Your task to perform on an android device: Go to wifi settings Image 0: 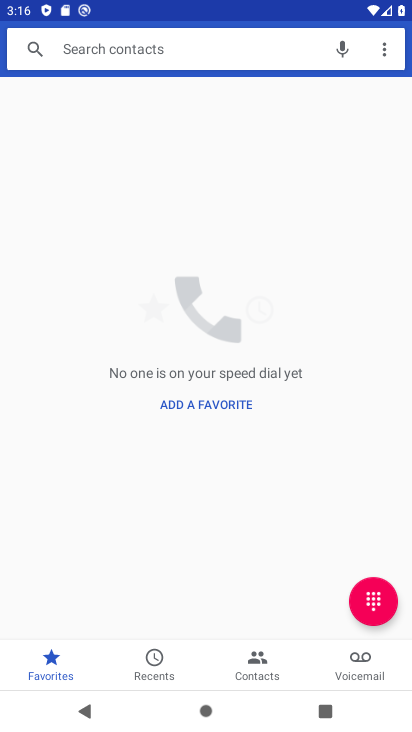
Step 0: press back button
Your task to perform on an android device: Go to wifi settings Image 1: 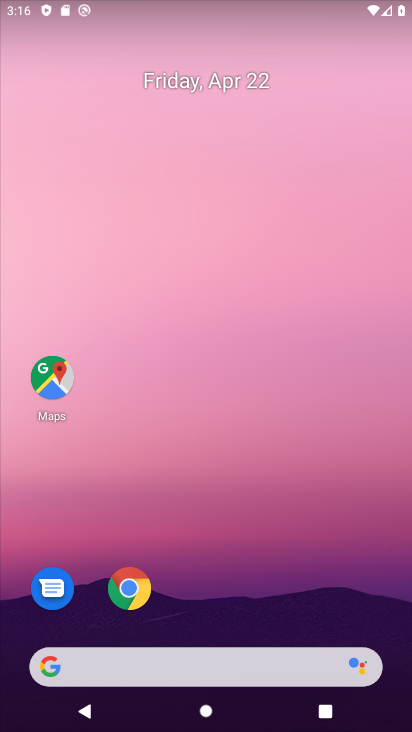
Step 1: drag from (178, 633) to (248, 77)
Your task to perform on an android device: Go to wifi settings Image 2: 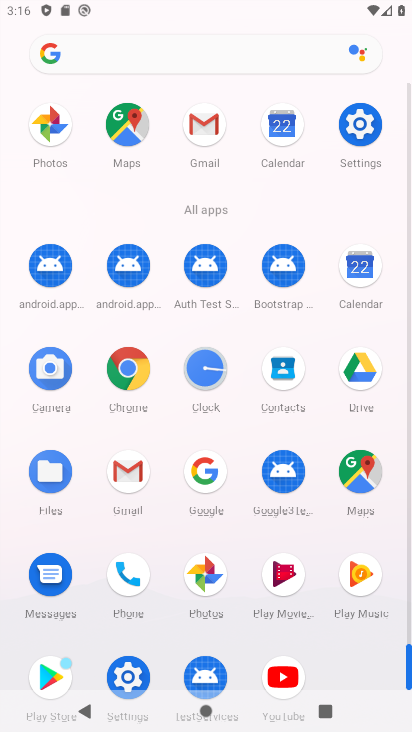
Step 2: click (133, 686)
Your task to perform on an android device: Go to wifi settings Image 3: 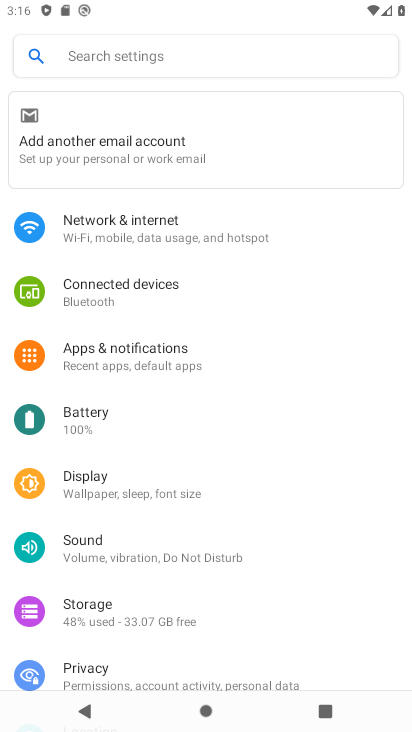
Step 3: click (210, 228)
Your task to perform on an android device: Go to wifi settings Image 4: 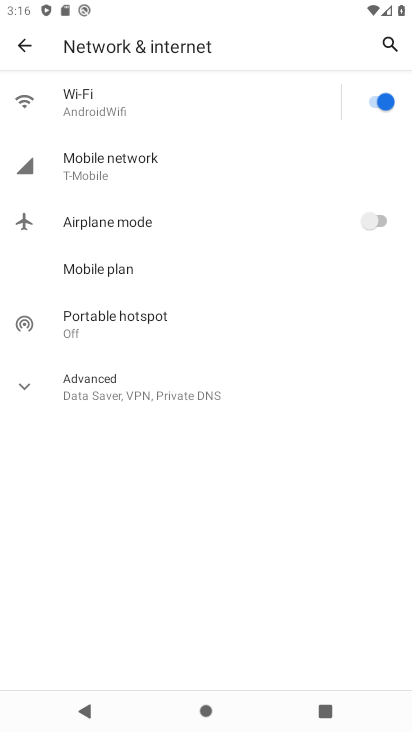
Step 4: click (171, 110)
Your task to perform on an android device: Go to wifi settings Image 5: 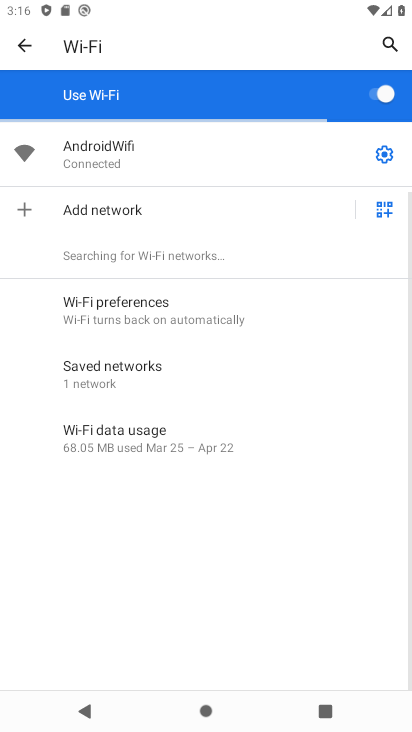
Step 5: task complete